Your task to perform on an android device: Open the Play Movies app and select the watchlist tab. Image 0: 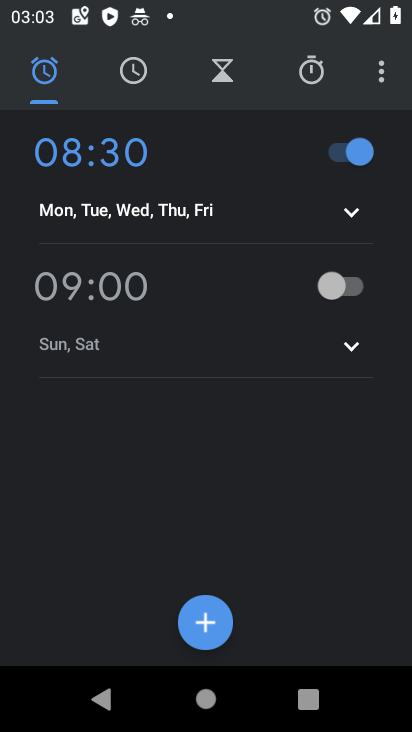
Step 0: press home button
Your task to perform on an android device: Open the Play Movies app and select the watchlist tab. Image 1: 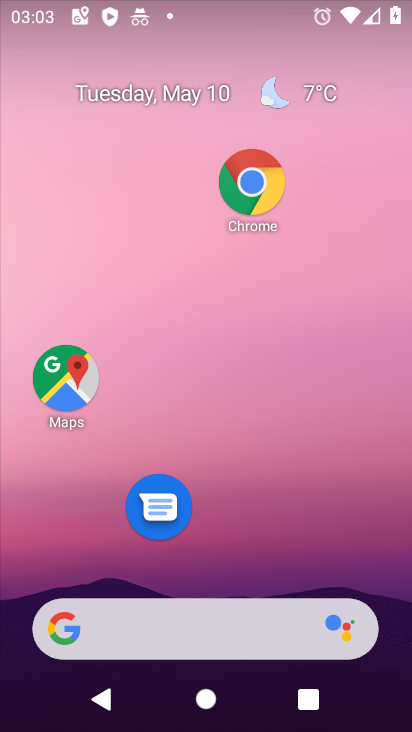
Step 1: drag from (256, 526) to (273, 29)
Your task to perform on an android device: Open the Play Movies app and select the watchlist tab. Image 2: 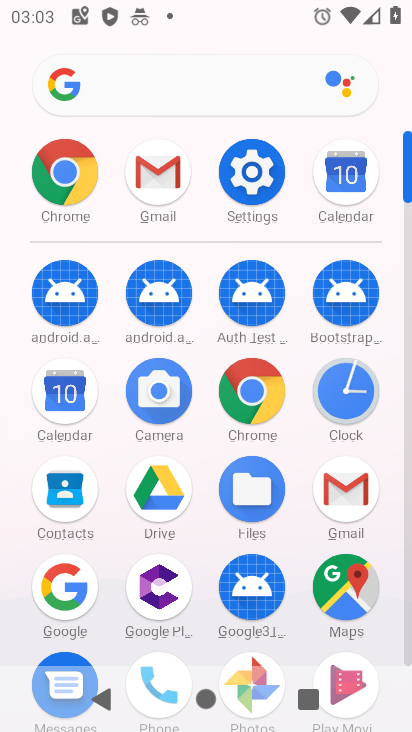
Step 2: click (408, 568)
Your task to perform on an android device: Open the Play Movies app and select the watchlist tab. Image 3: 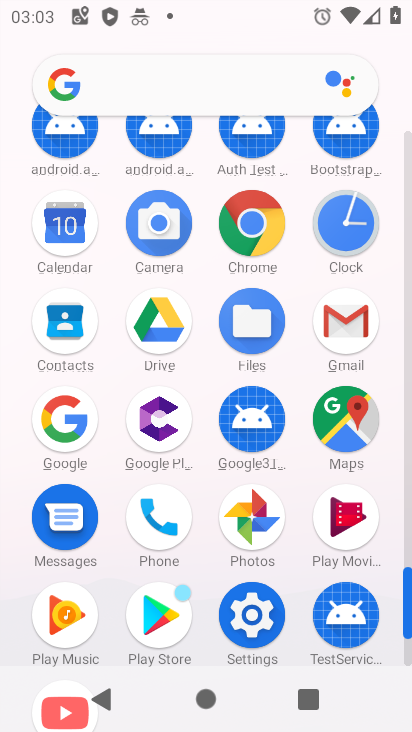
Step 3: click (326, 559)
Your task to perform on an android device: Open the Play Movies app and select the watchlist tab. Image 4: 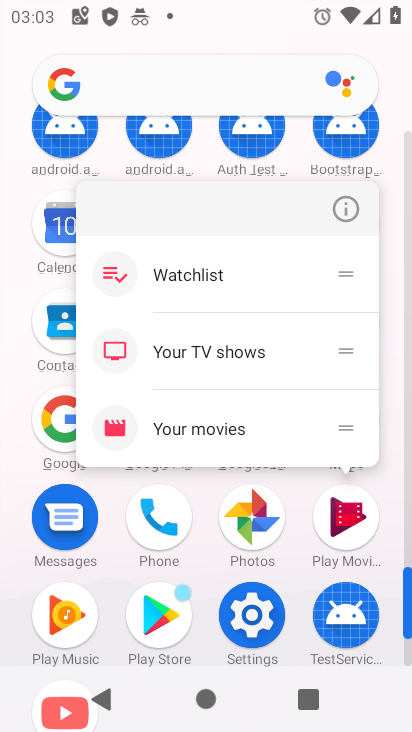
Step 4: click (365, 541)
Your task to perform on an android device: Open the Play Movies app and select the watchlist tab. Image 5: 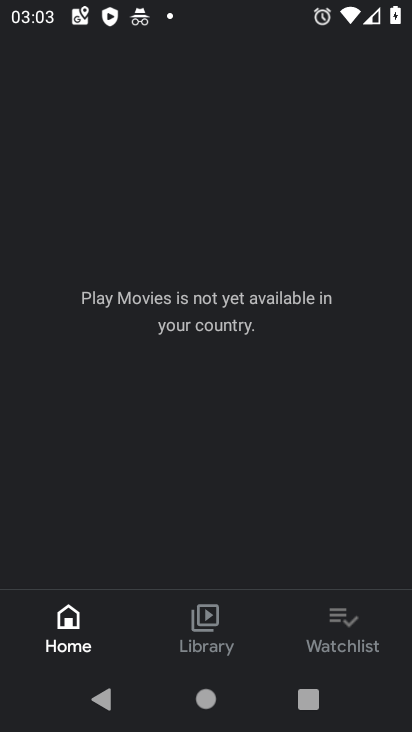
Step 5: task complete